Your task to perform on an android device: Go to location settings Image 0: 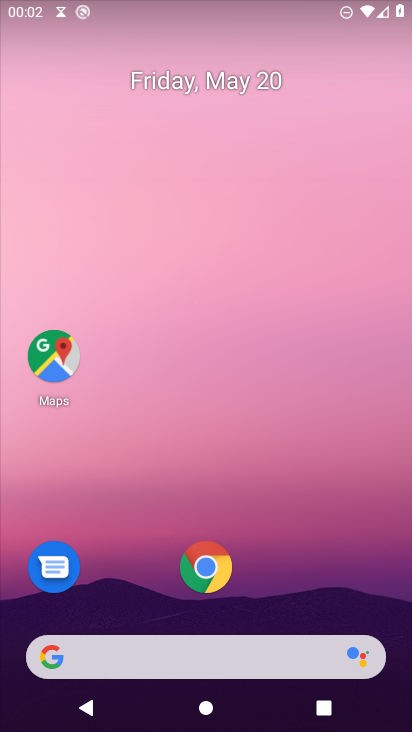
Step 0: drag from (253, 603) to (258, 18)
Your task to perform on an android device: Go to location settings Image 1: 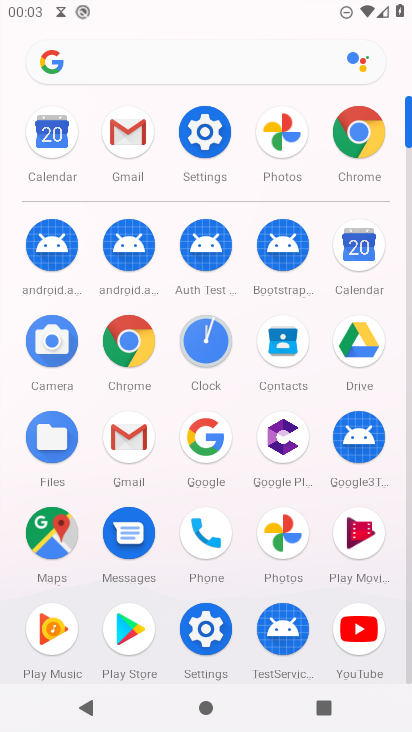
Step 1: click (208, 127)
Your task to perform on an android device: Go to location settings Image 2: 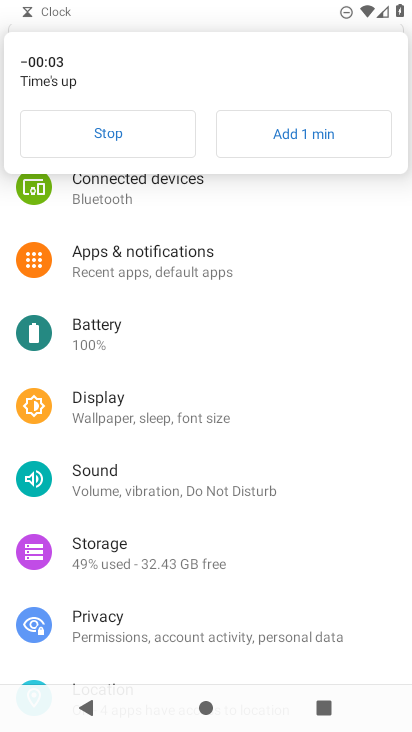
Step 2: drag from (143, 611) to (191, 234)
Your task to perform on an android device: Go to location settings Image 3: 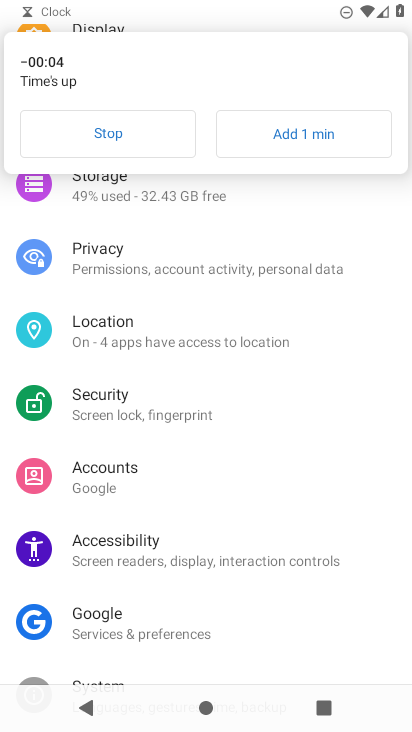
Step 3: click (104, 139)
Your task to perform on an android device: Go to location settings Image 4: 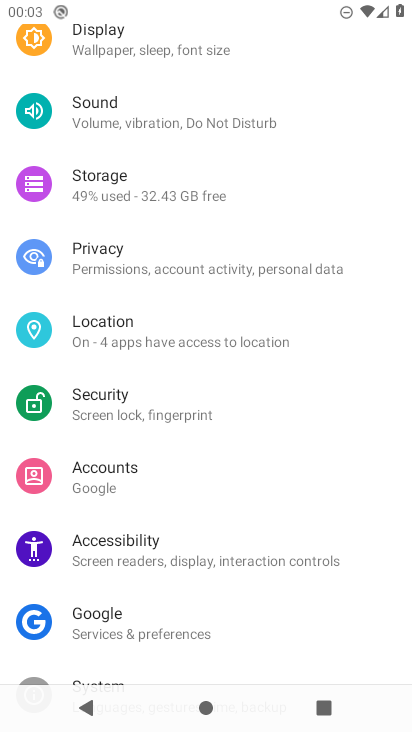
Step 4: click (139, 326)
Your task to perform on an android device: Go to location settings Image 5: 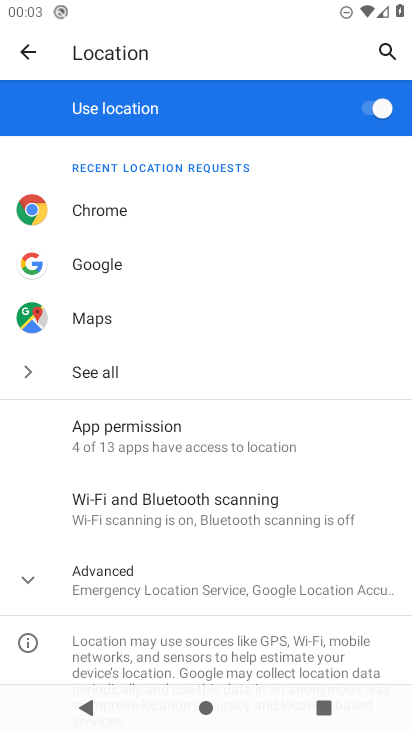
Step 5: click (26, 575)
Your task to perform on an android device: Go to location settings Image 6: 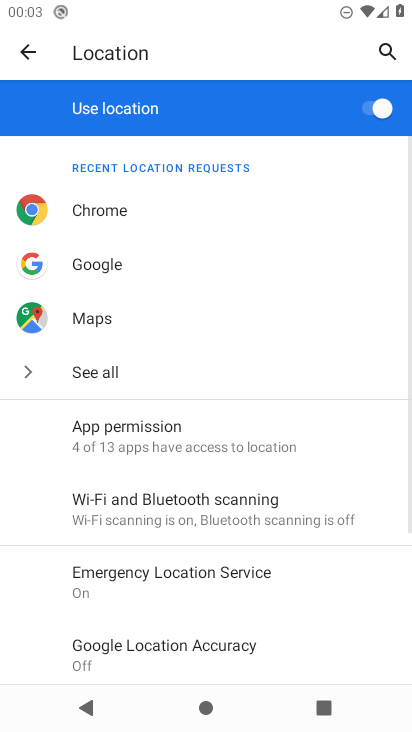
Step 6: task complete